Your task to perform on an android device: Open the web browser Image 0: 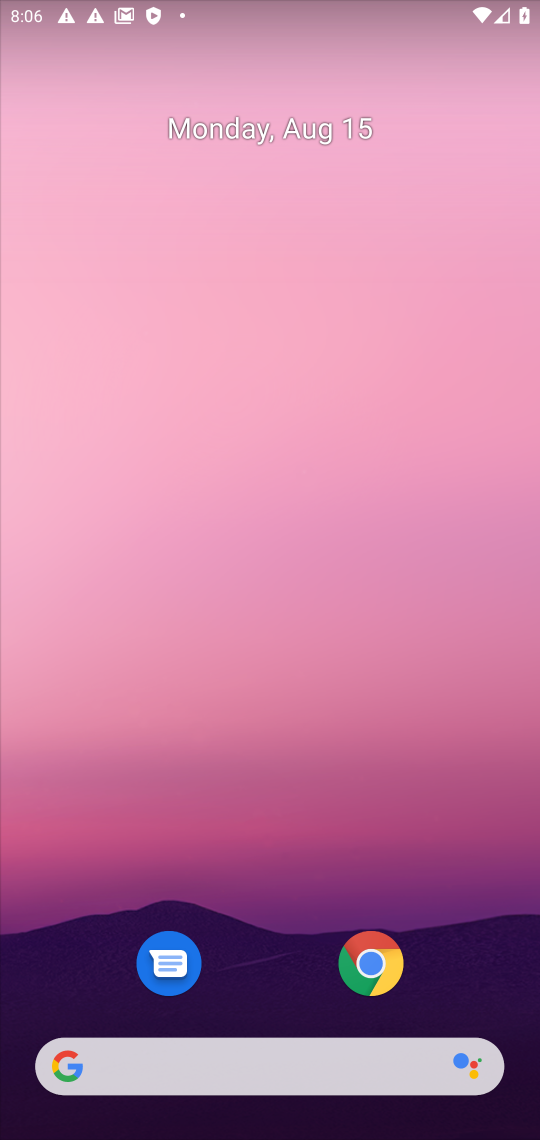
Step 0: click (255, 1058)
Your task to perform on an android device: Open the web browser Image 1: 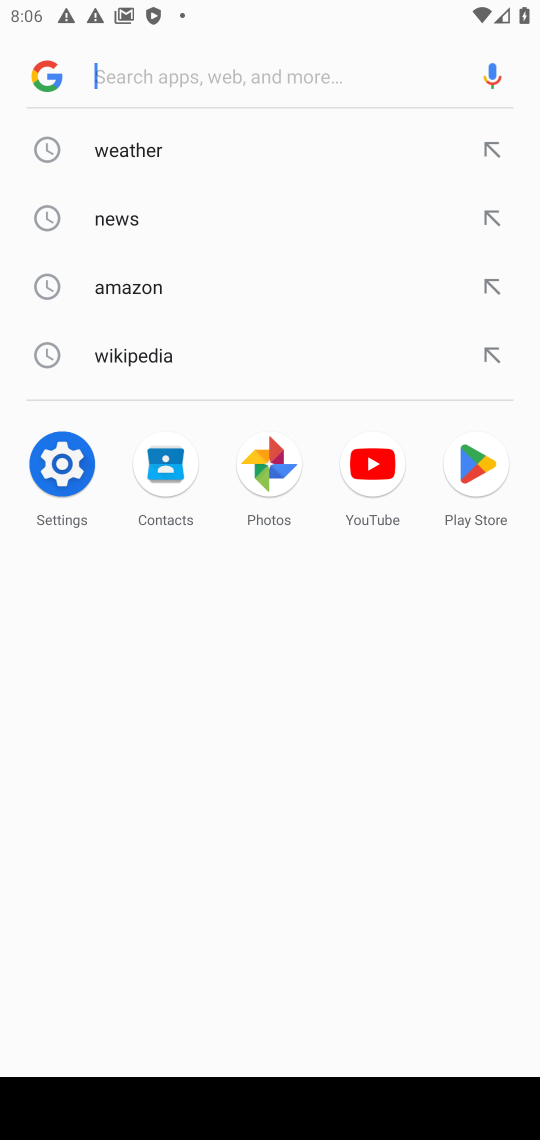
Step 1: task complete